Your task to perform on an android device: Turn off the flashlight Image 0: 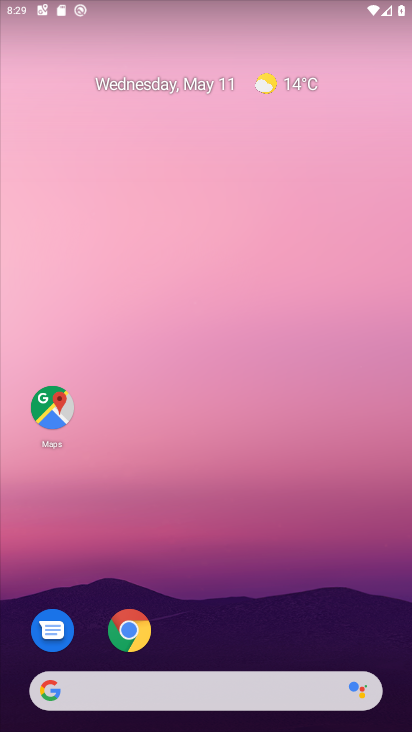
Step 0: drag from (28, 674) to (267, 214)
Your task to perform on an android device: Turn off the flashlight Image 1: 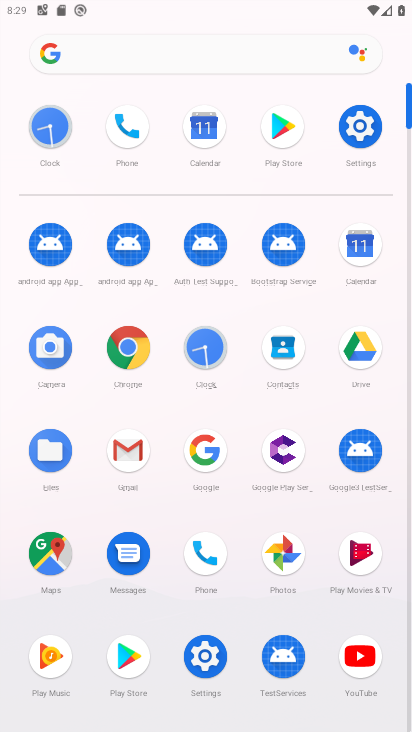
Step 1: click (341, 132)
Your task to perform on an android device: Turn off the flashlight Image 2: 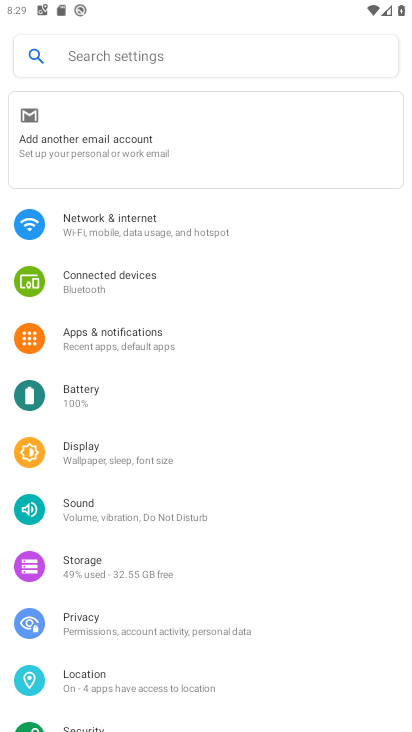
Step 2: drag from (190, 690) to (257, 241)
Your task to perform on an android device: Turn off the flashlight Image 3: 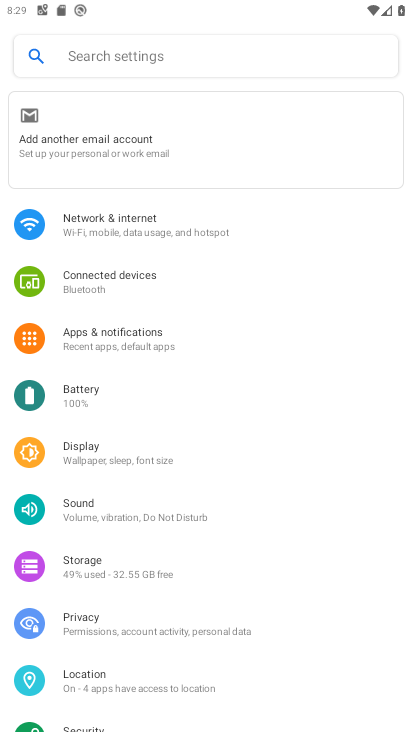
Step 3: click (79, 526)
Your task to perform on an android device: Turn off the flashlight Image 4: 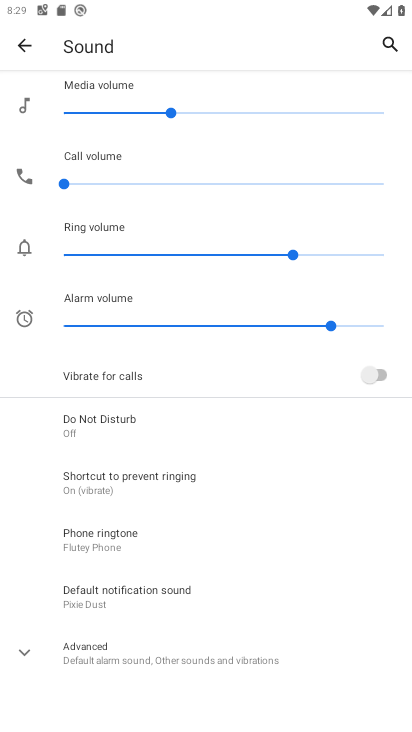
Step 4: task complete